Your task to perform on an android device: Open Youtube and go to the subscriptions tab Image 0: 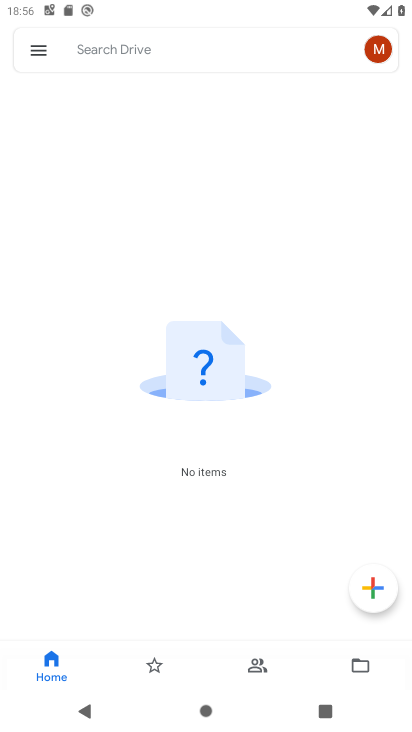
Step 0: press home button
Your task to perform on an android device: Open Youtube and go to the subscriptions tab Image 1: 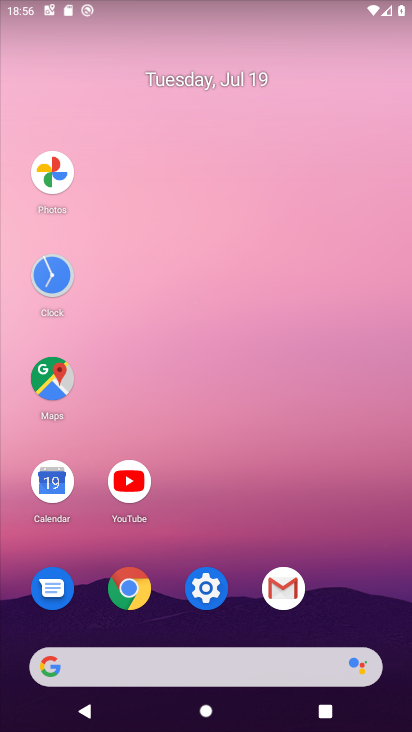
Step 1: click (119, 470)
Your task to perform on an android device: Open Youtube and go to the subscriptions tab Image 2: 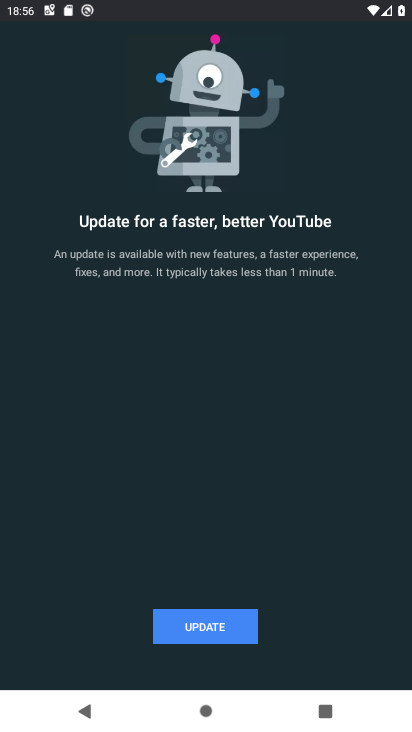
Step 2: click (212, 632)
Your task to perform on an android device: Open Youtube and go to the subscriptions tab Image 3: 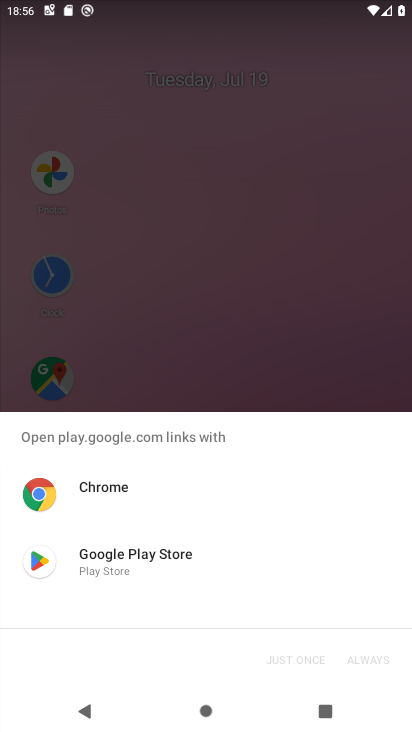
Step 3: click (147, 549)
Your task to perform on an android device: Open Youtube and go to the subscriptions tab Image 4: 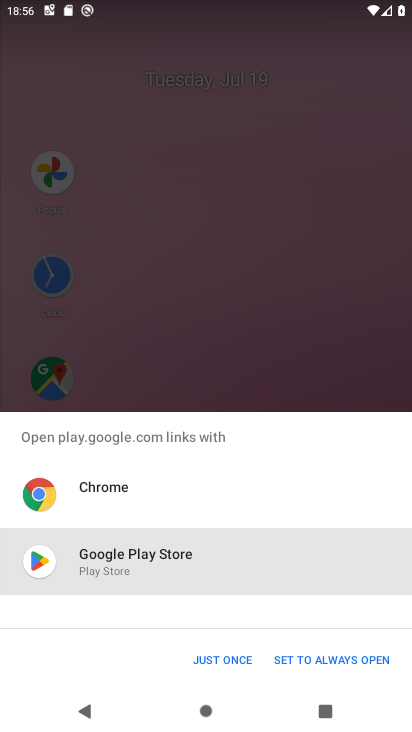
Step 4: click (232, 656)
Your task to perform on an android device: Open Youtube and go to the subscriptions tab Image 5: 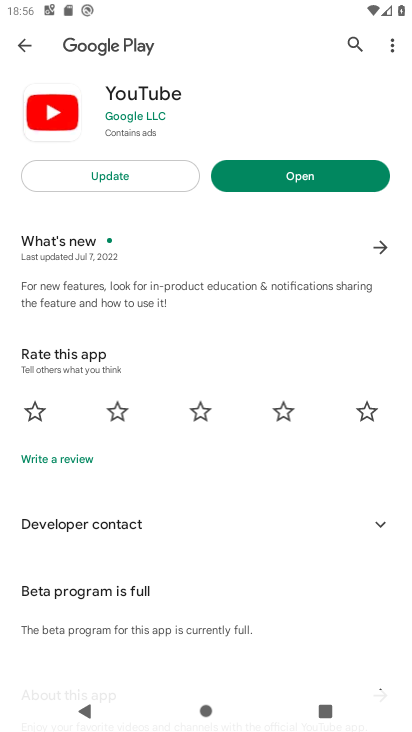
Step 5: click (150, 178)
Your task to perform on an android device: Open Youtube and go to the subscriptions tab Image 6: 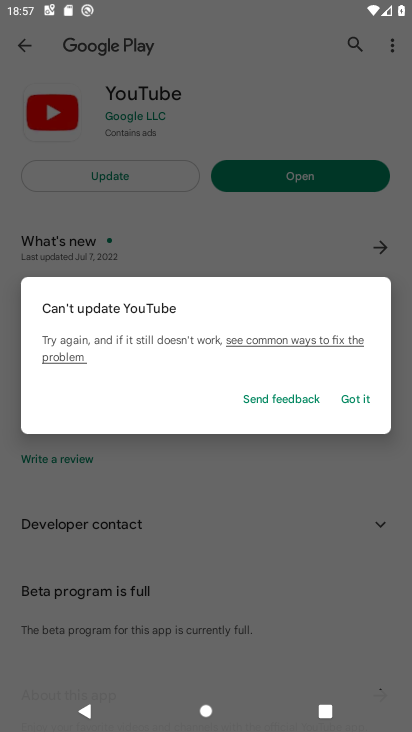
Step 6: click (357, 397)
Your task to perform on an android device: Open Youtube and go to the subscriptions tab Image 7: 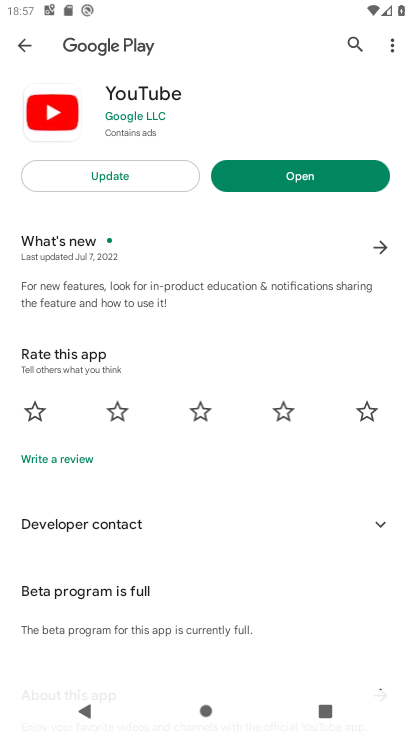
Step 7: click (136, 169)
Your task to perform on an android device: Open Youtube and go to the subscriptions tab Image 8: 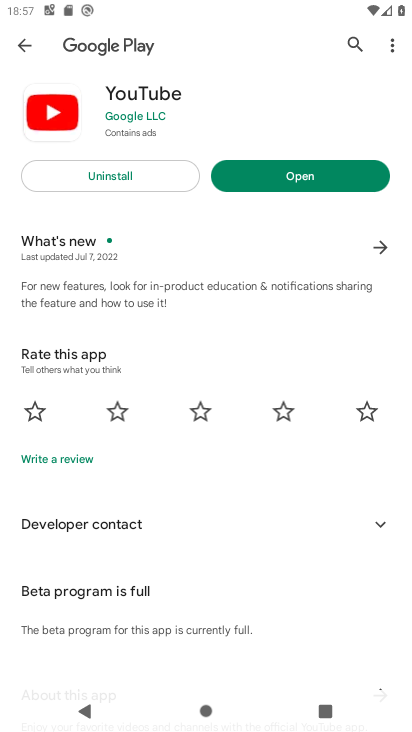
Step 8: click (299, 176)
Your task to perform on an android device: Open Youtube and go to the subscriptions tab Image 9: 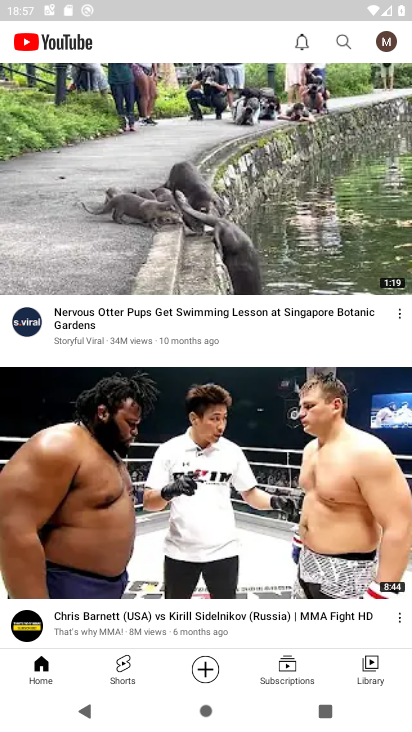
Step 9: click (290, 670)
Your task to perform on an android device: Open Youtube and go to the subscriptions tab Image 10: 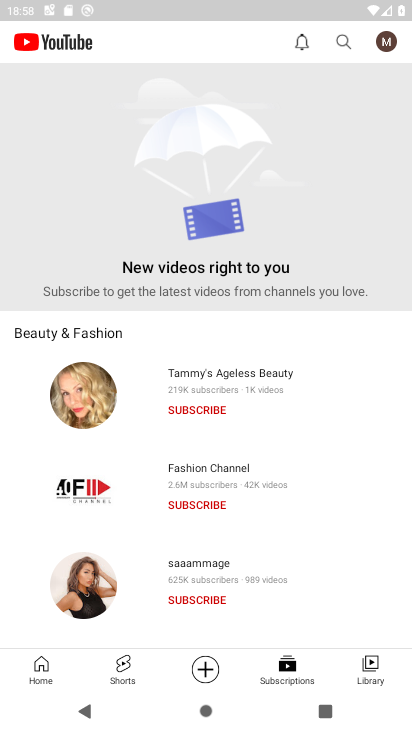
Step 10: task complete